Your task to perform on an android device: turn off translation in the chrome app Image 0: 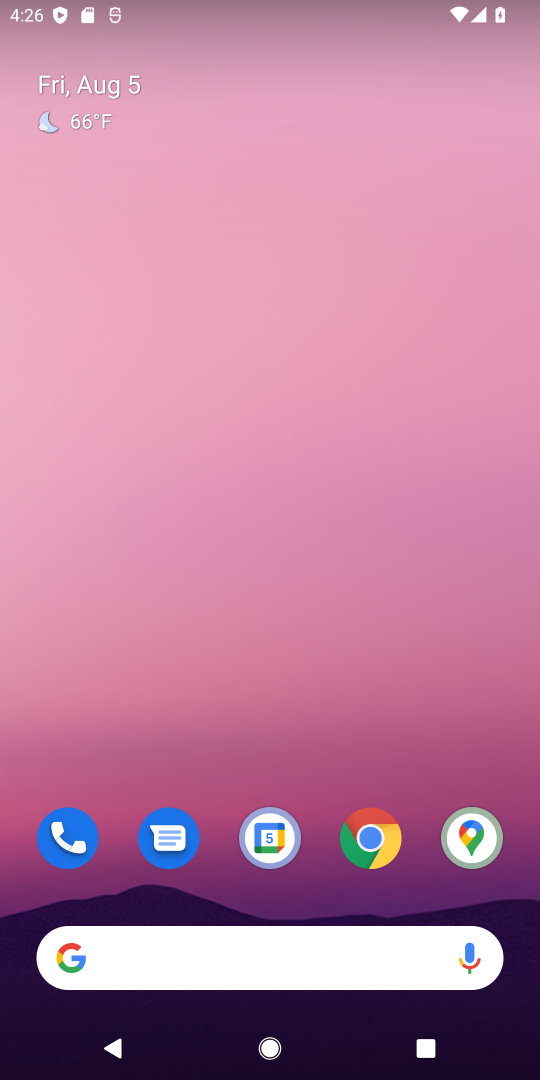
Step 0: drag from (329, 887) to (358, 269)
Your task to perform on an android device: turn off translation in the chrome app Image 1: 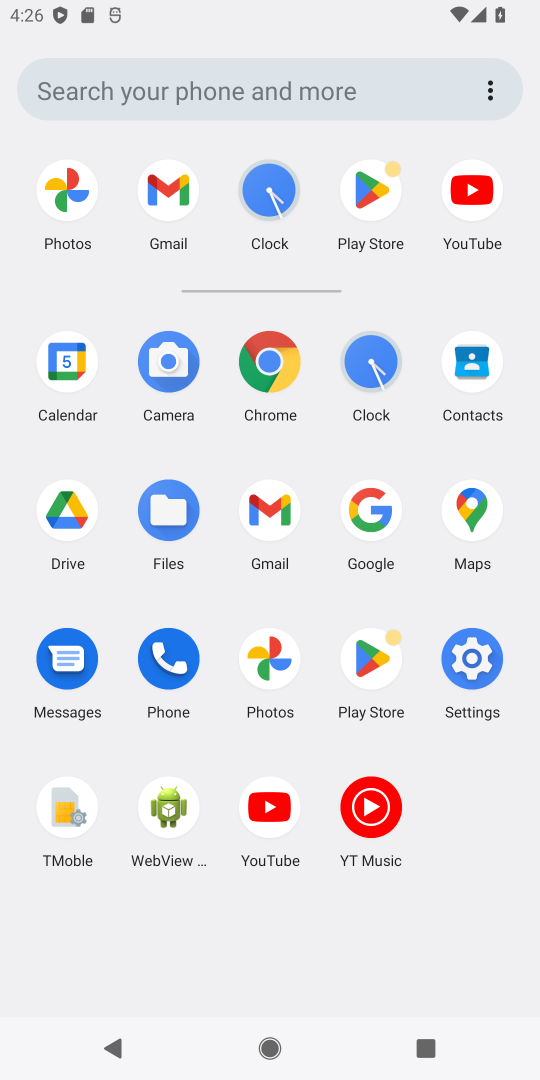
Step 1: click (276, 365)
Your task to perform on an android device: turn off translation in the chrome app Image 2: 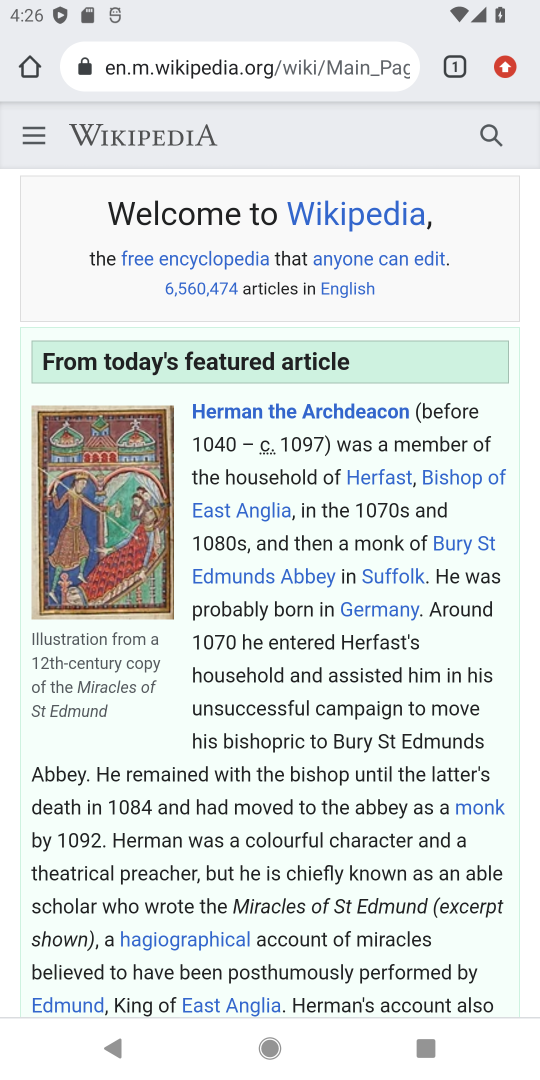
Step 2: click (515, 53)
Your task to perform on an android device: turn off translation in the chrome app Image 3: 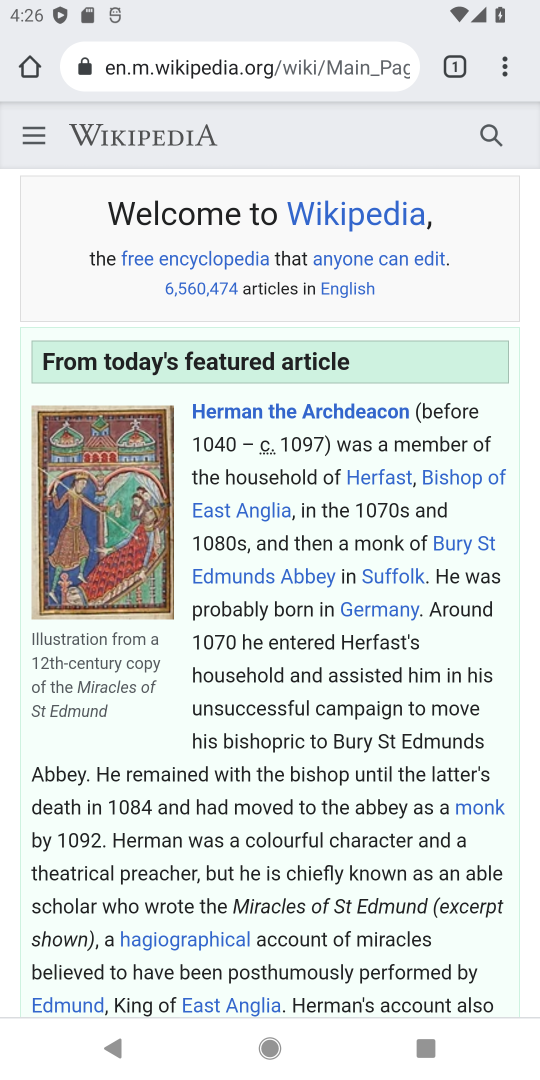
Step 3: click (509, 63)
Your task to perform on an android device: turn off translation in the chrome app Image 4: 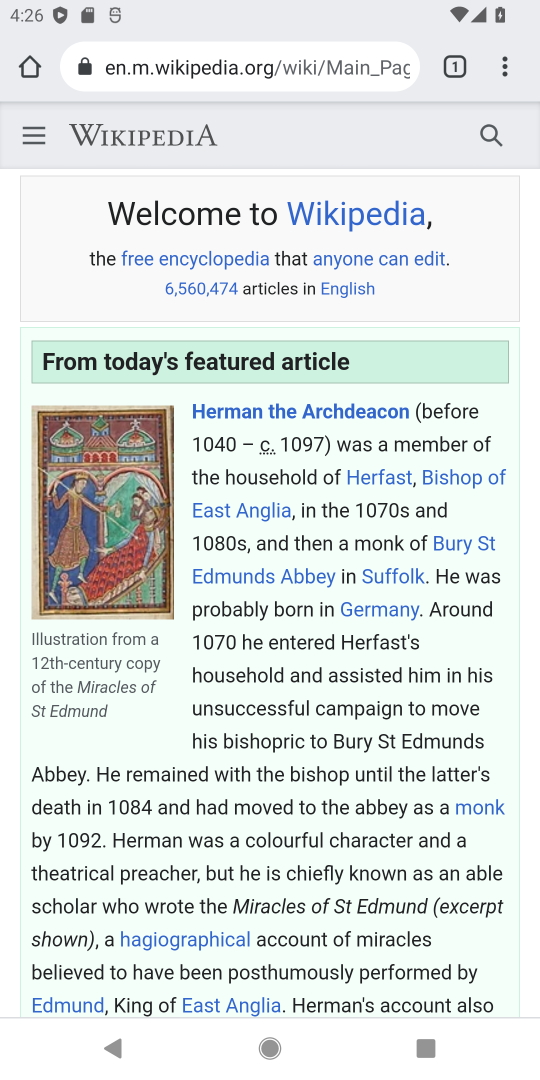
Step 4: click (502, 61)
Your task to perform on an android device: turn off translation in the chrome app Image 5: 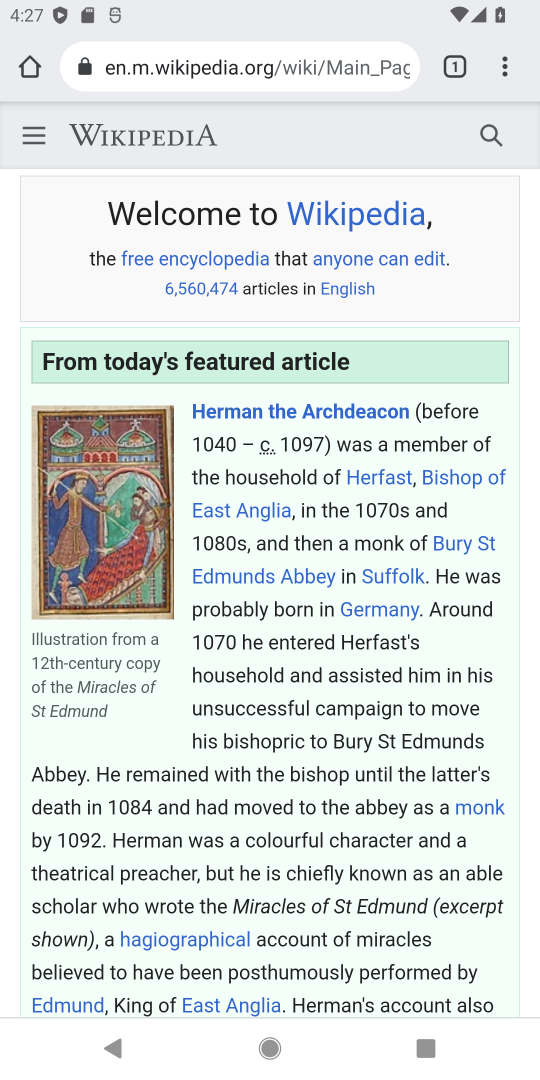
Step 5: click (497, 53)
Your task to perform on an android device: turn off translation in the chrome app Image 6: 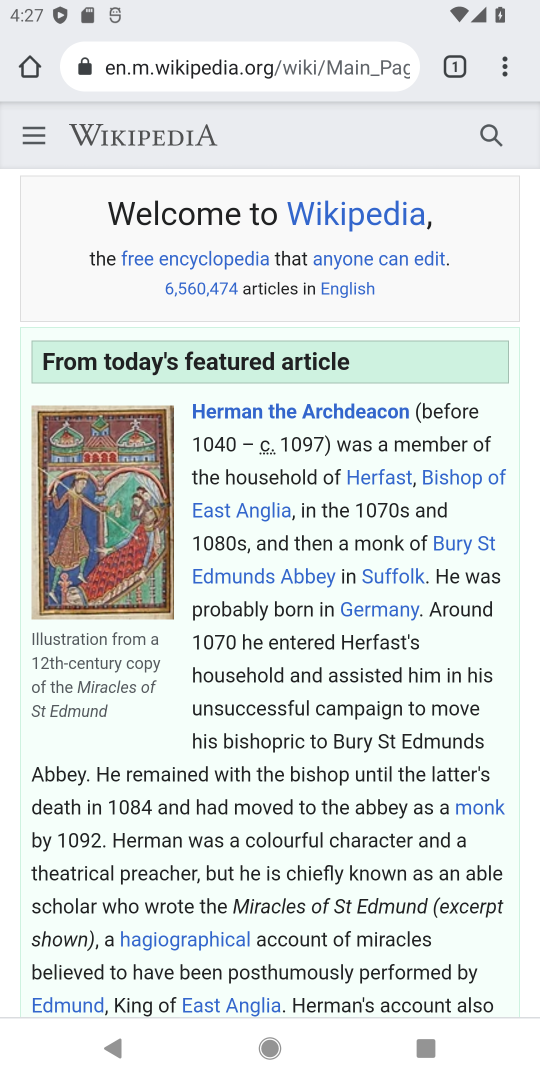
Step 6: click (519, 53)
Your task to perform on an android device: turn off translation in the chrome app Image 7: 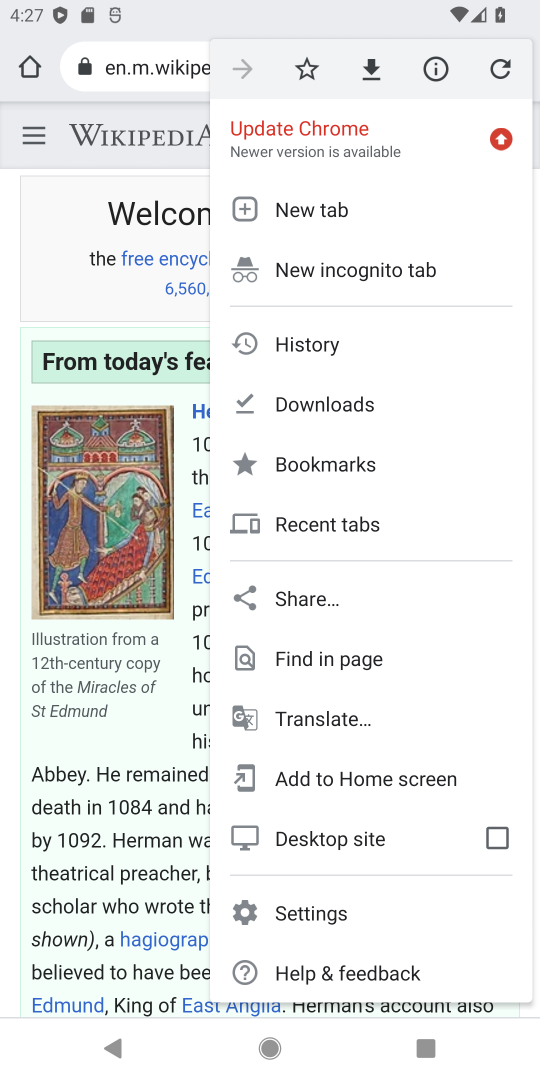
Step 7: click (310, 916)
Your task to perform on an android device: turn off translation in the chrome app Image 8: 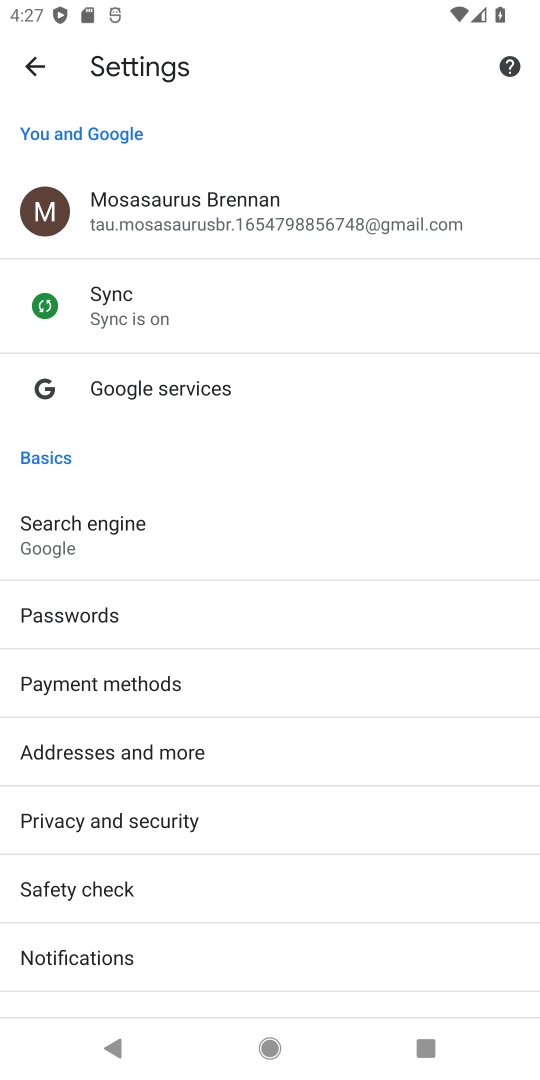
Step 8: drag from (247, 868) to (296, 345)
Your task to perform on an android device: turn off translation in the chrome app Image 9: 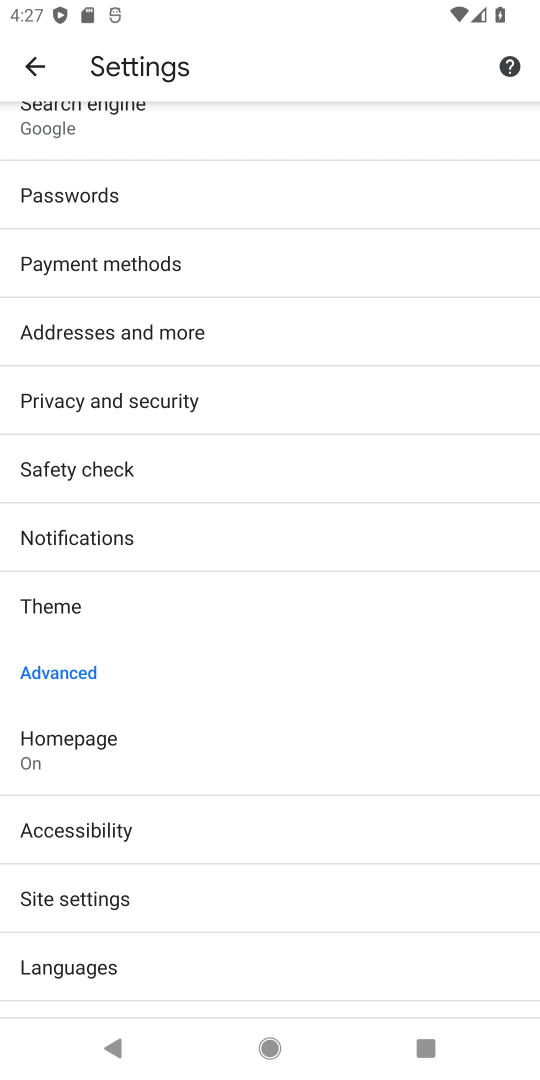
Step 9: drag from (177, 963) to (221, 537)
Your task to perform on an android device: turn off translation in the chrome app Image 10: 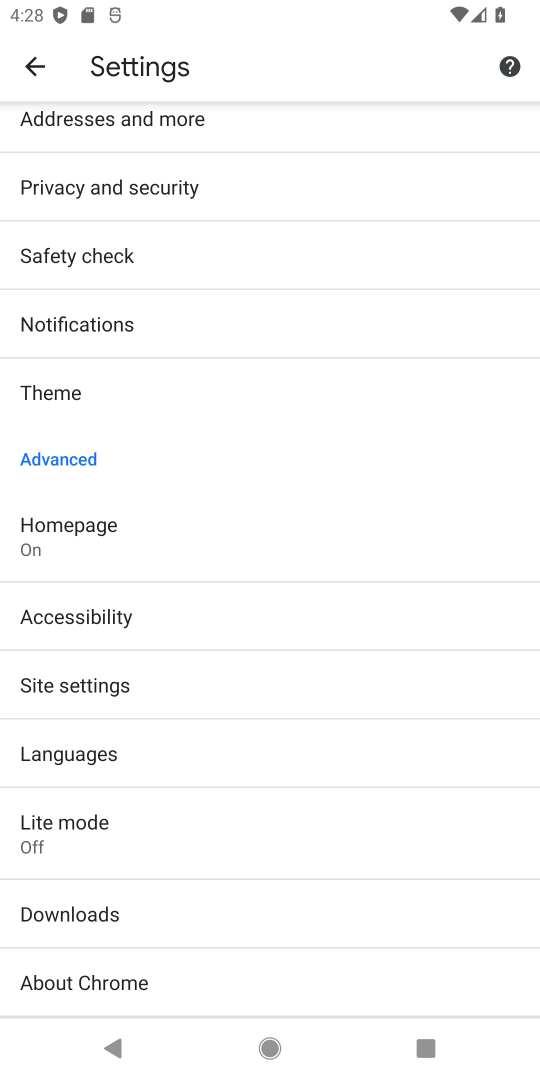
Step 10: click (106, 749)
Your task to perform on an android device: turn off translation in the chrome app Image 11: 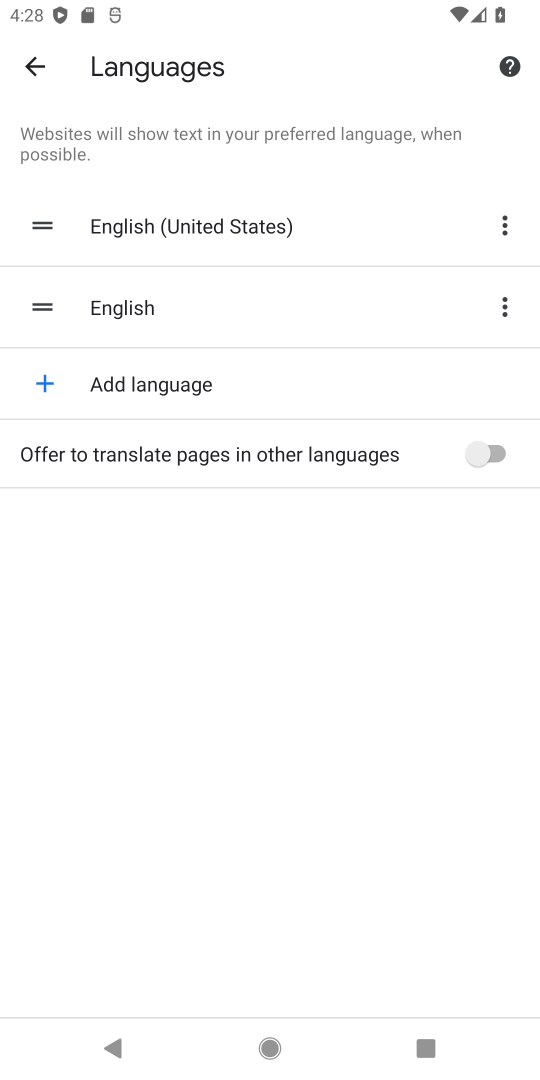
Step 11: task complete